Your task to perform on an android device: turn pop-ups on in chrome Image 0: 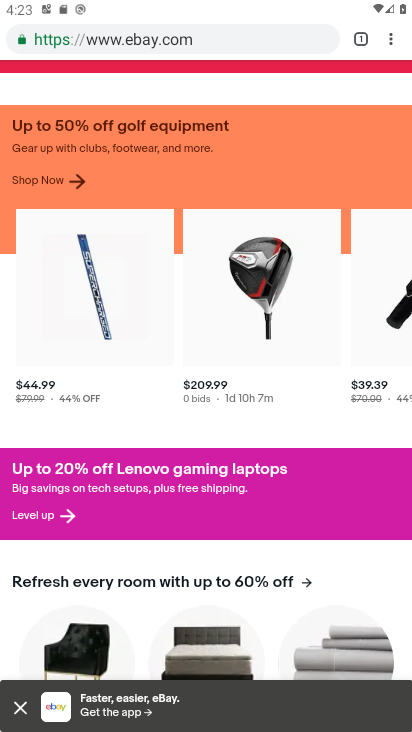
Step 0: click (392, 42)
Your task to perform on an android device: turn pop-ups on in chrome Image 1: 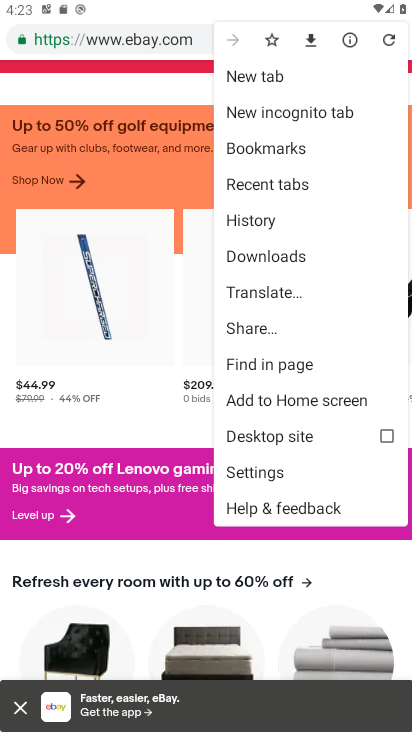
Step 1: click (255, 472)
Your task to perform on an android device: turn pop-ups on in chrome Image 2: 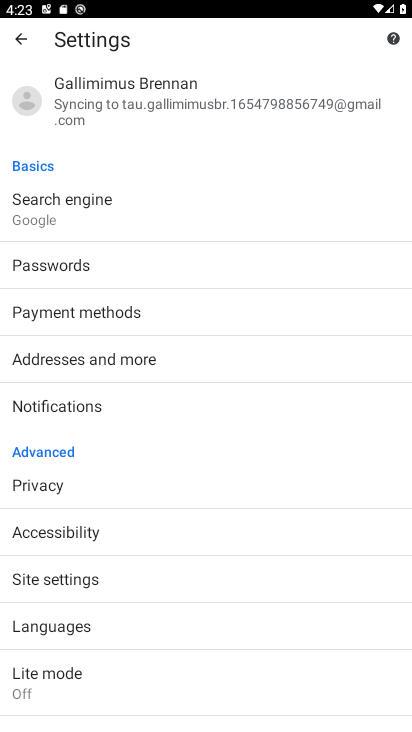
Step 2: click (58, 574)
Your task to perform on an android device: turn pop-ups on in chrome Image 3: 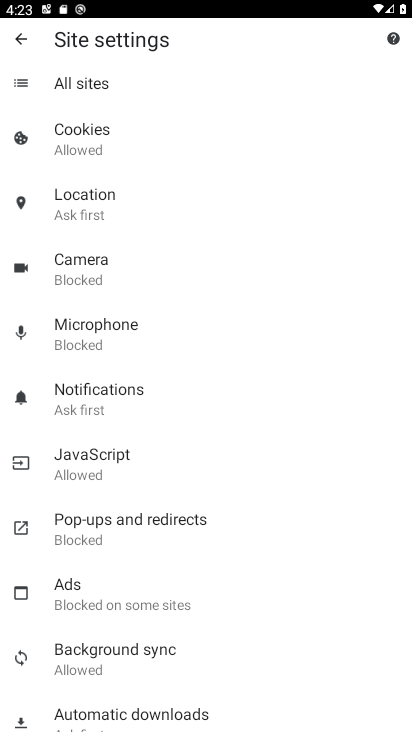
Step 3: click (77, 520)
Your task to perform on an android device: turn pop-ups on in chrome Image 4: 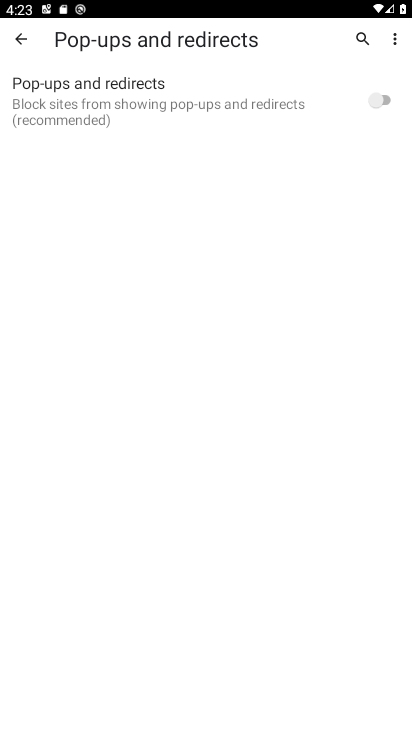
Step 4: click (388, 97)
Your task to perform on an android device: turn pop-ups on in chrome Image 5: 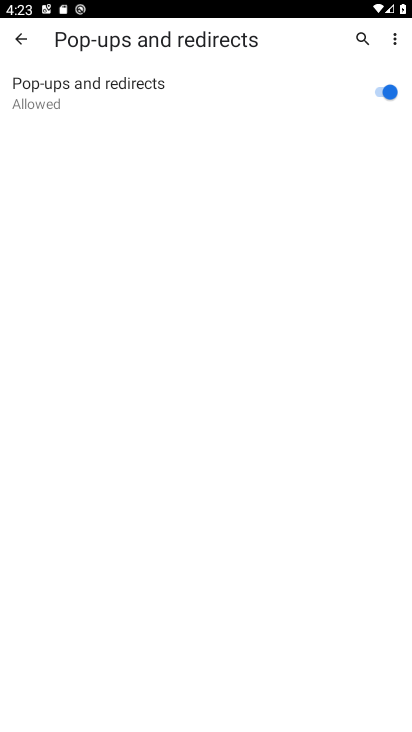
Step 5: task complete